Your task to perform on an android device: Open Yahoo.com Image 0: 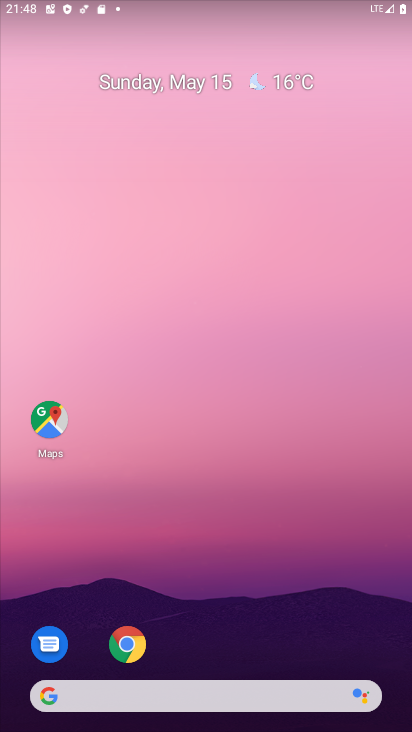
Step 0: click (128, 641)
Your task to perform on an android device: Open Yahoo.com Image 1: 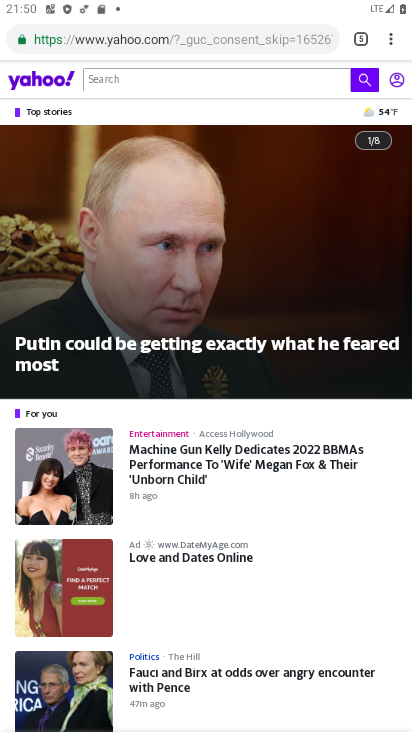
Step 1: task complete